Your task to perform on an android device: turn on the 24-hour format for clock Image 0: 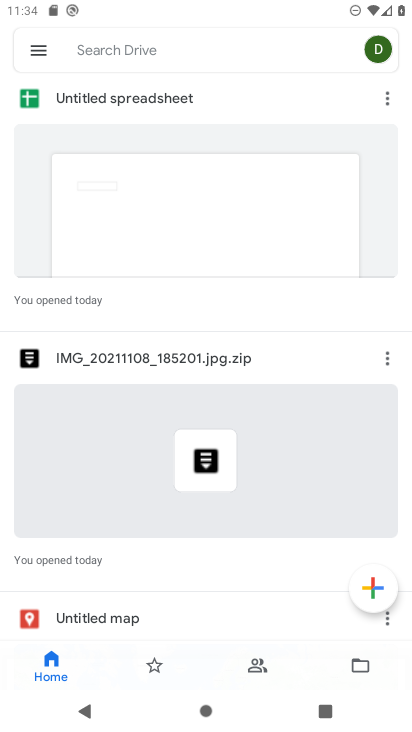
Step 0: press home button
Your task to perform on an android device: turn on the 24-hour format for clock Image 1: 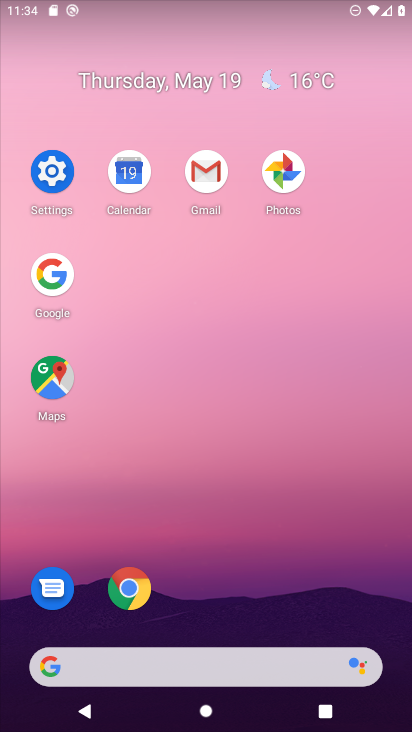
Step 1: drag from (267, 408) to (275, 24)
Your task to perform on an android device: turn on the 24-hour format for clock Image 2: 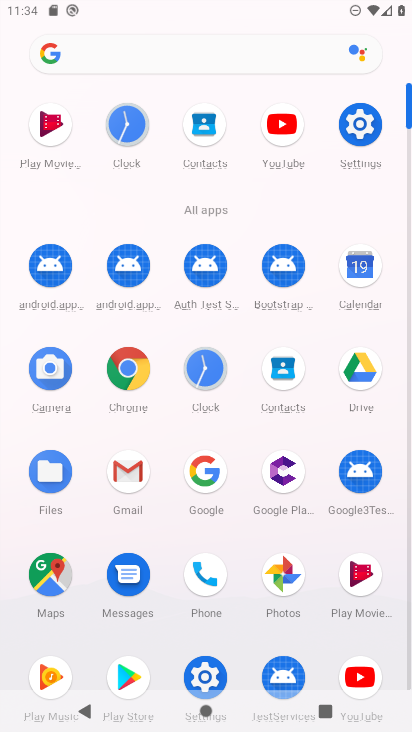
Step 2: drag from (199, 375) to (136, 307)
Your task to perform on an android device: turn on the 24-hour format for clock Image 3: 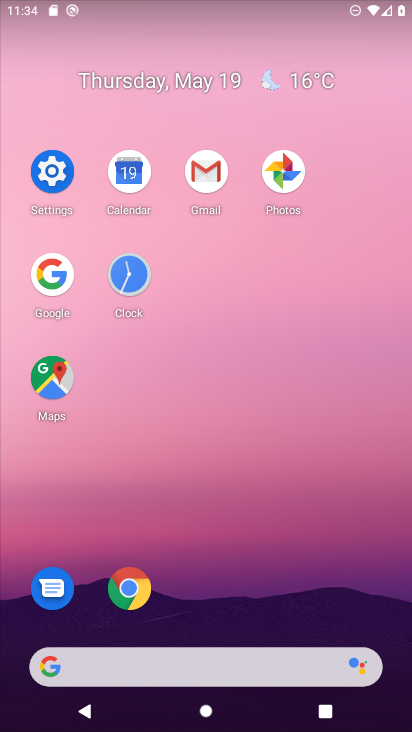
Step 3: click (133, 282)
Your task to perform on an android device: turn on the 24-hour format for clock Image 4: 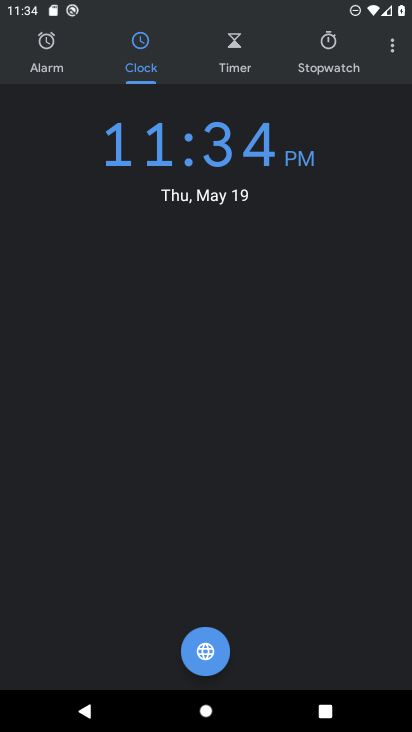
Step 4: click (389, 43)
Your task to perform on an android device: turn on the 24-hour format for clock Image 5: 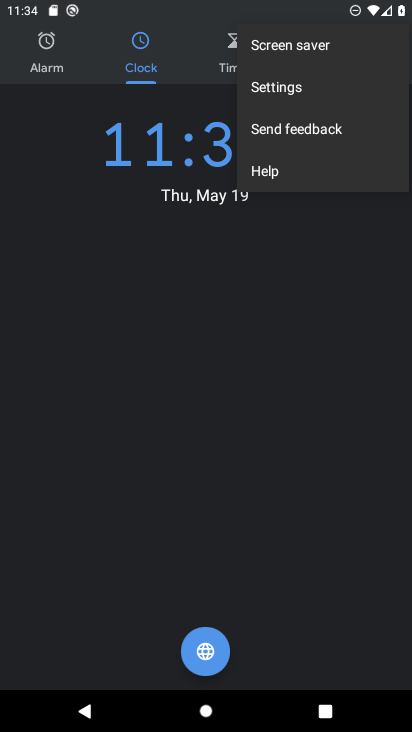
Step 5: click (268, 94)
Your task to perform on an android device: turn on the 24-hour format for clock Image 6: 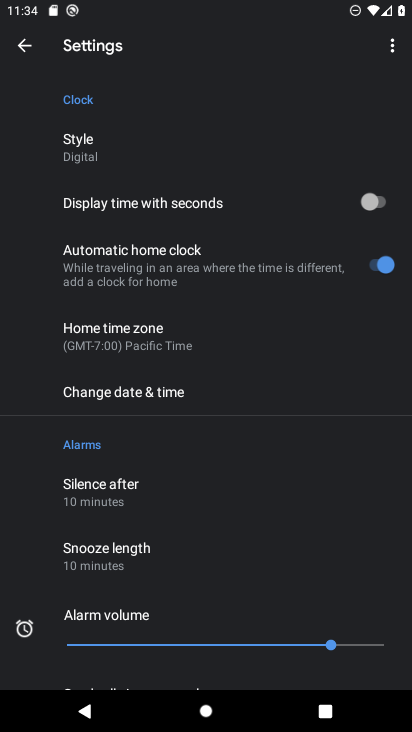
Step 6: drag from (212, 573) to (180, 129)
Your task to perform on an android device: turn on the 24-hour format for clock Image 7: 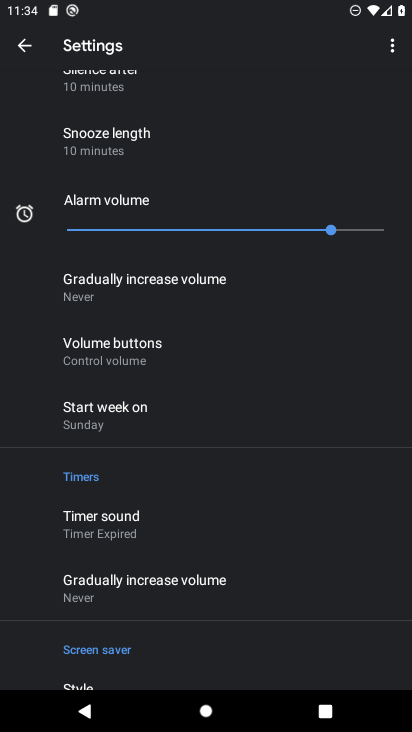
Step 7: drag from (191, 459) to (222, 129)
Your task to perform on an android device: turn on the 24-hour format for clock Image 8: 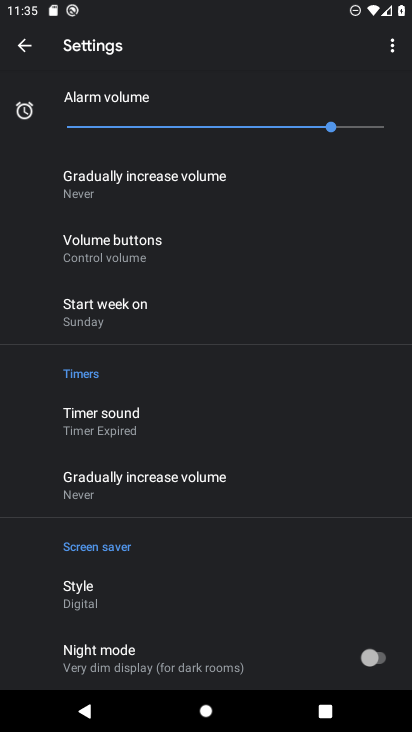
Step 8: drag from (285, 316) to (303, 571)
Your task to perform on an android device: turn on the 24-hour format for clock Image 9: 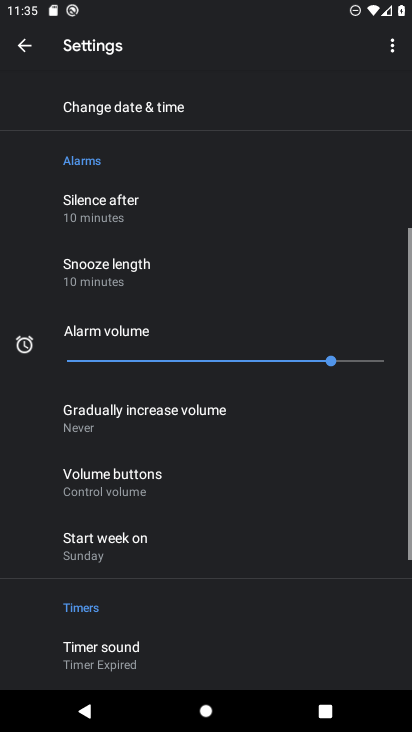
Step 9: drag from (195, 140) to (212, 259)
Your task to perform on an android device: turn on the 24-hour format for clock Image 10: 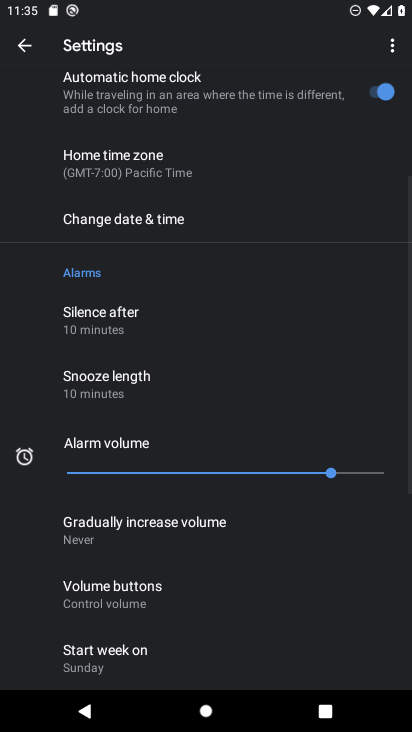
Step 10: click (168, 220)
Your task to perform on an android device: turn on the 24-hour format for clock Image 11: 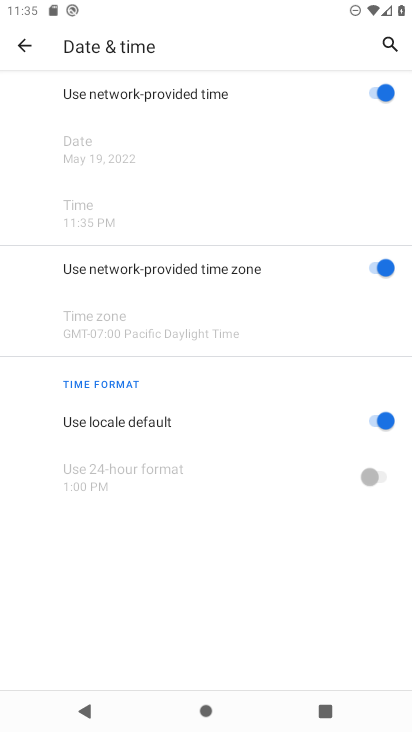
Step 11: click (382, 412)
Your task to perform on an android device: turn on the 24-hour format for clock Image 12: 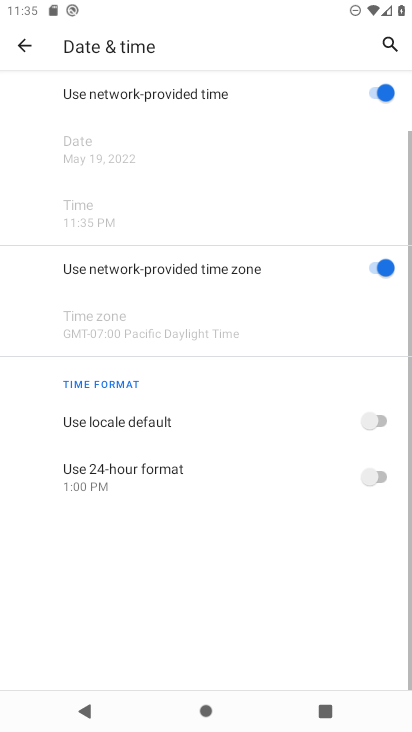
Step 12: click (378, 478)
Your task to perform on an android device: turn on the 24-hour format for clock Image 13: 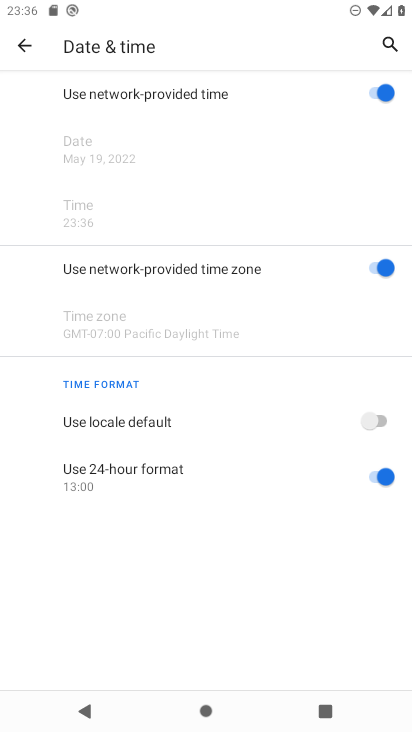
Step 13: task complete